Your task to perform on an android device: turn off location Image 0: 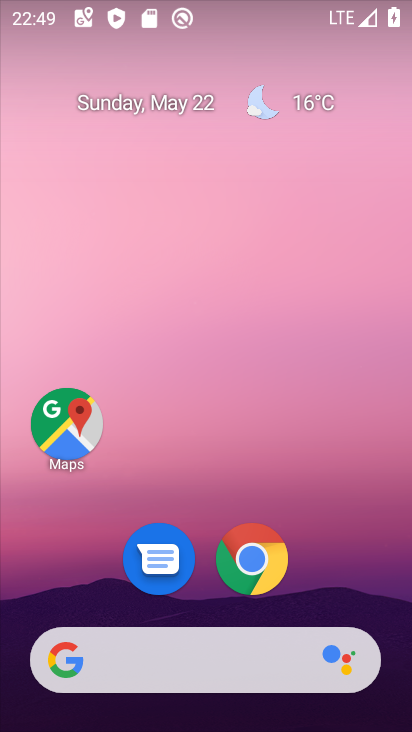
Step 0: drag from (237, 672) to (277, 174)
Your task to perform on an android device: turn off location Image 1: 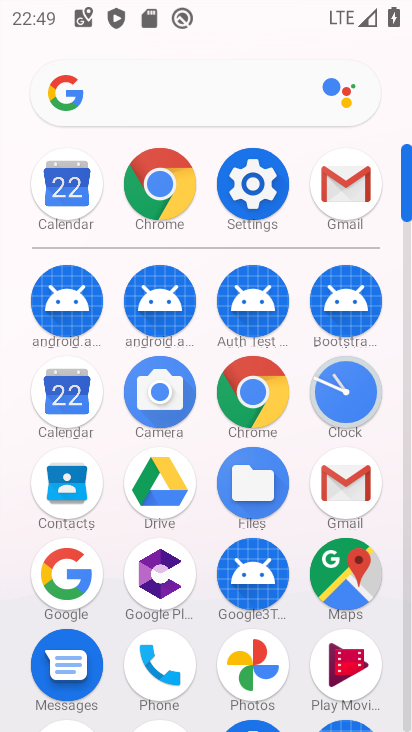
Step 1: click (269, 171)
Your task to perform on an android device: turn off location Image 2: 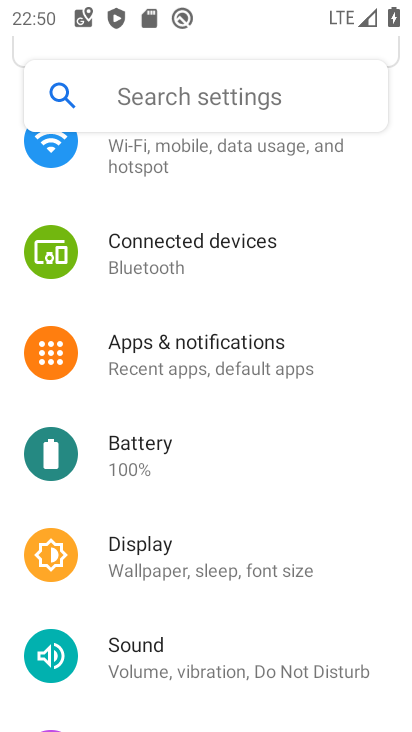
Step 2: click (181, 108)
Your task to perform on an android device: turn off location Image 3: 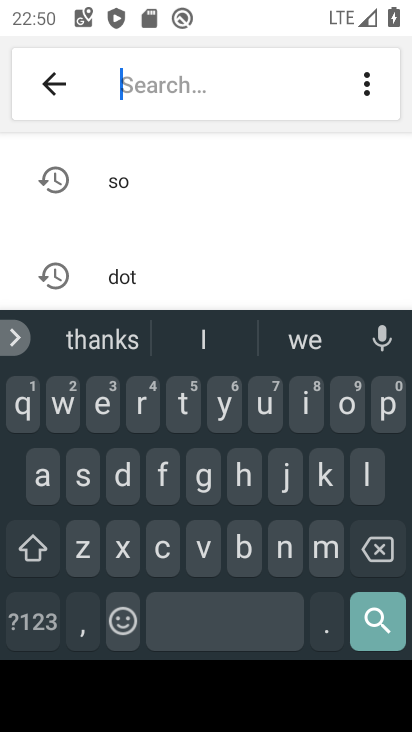
Step 3: click (371, 480)
Your task to perform on an android device: turn off location Image 4: 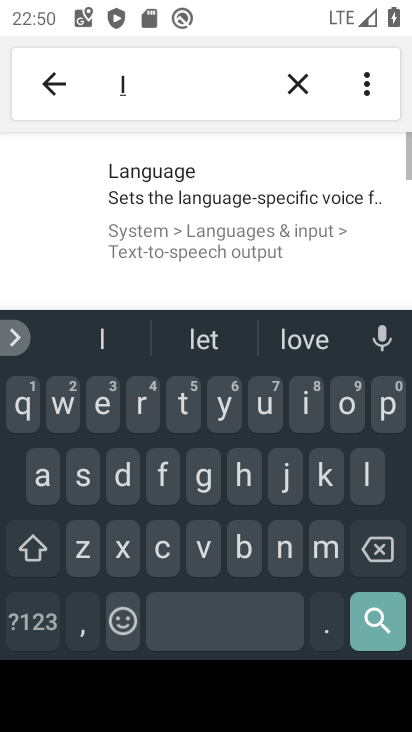
Step 4: click (350, 415)
Your task to perform on an android device: turn off location Image 5: 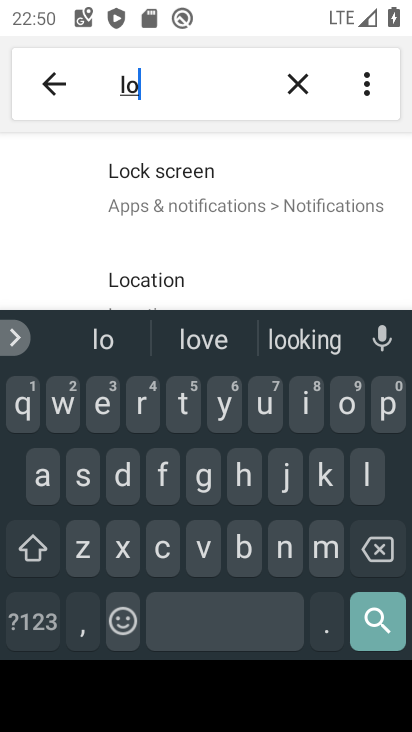
Step 5: drag from (221, 274) to (239, 222)
Your task to perform on an android device: turn off location Image 6: 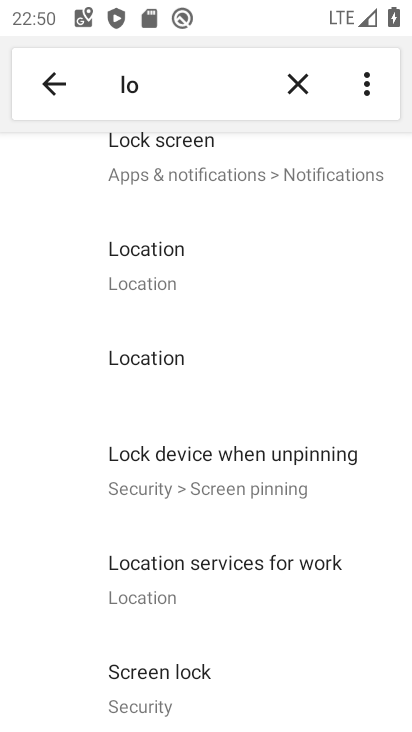
Step 6: click (199, 239)
Your task to perform on an android device: turn off location Image 7: 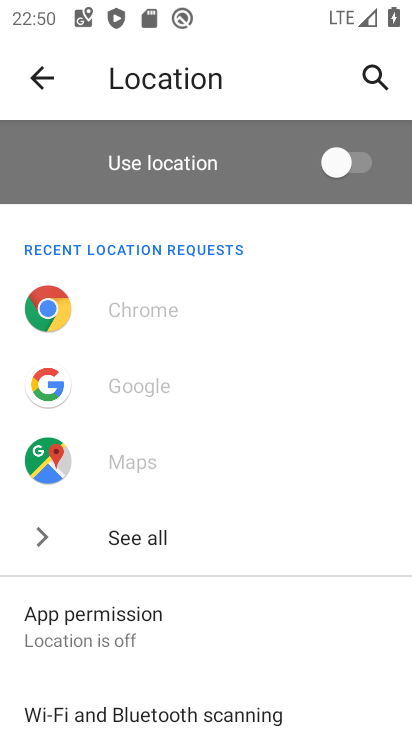
Step 7: click (359, 143)
Your task to perform on an android device: turn off location Image 8: 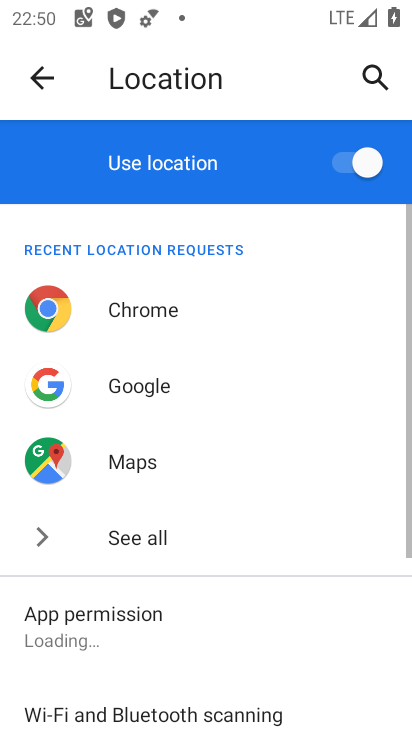
Step 8: click (359, 143)
Your task to perform on an android device: turn off location Image 9: 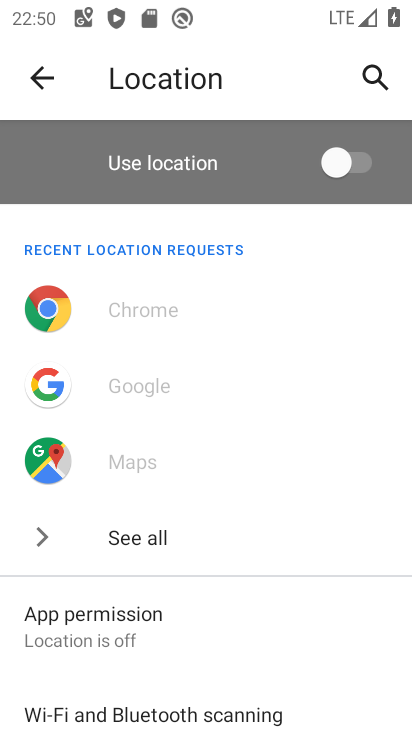
Step 9: task complete